Your task to perform on an android device: Open the calendar and show me this week's events? Image 0: 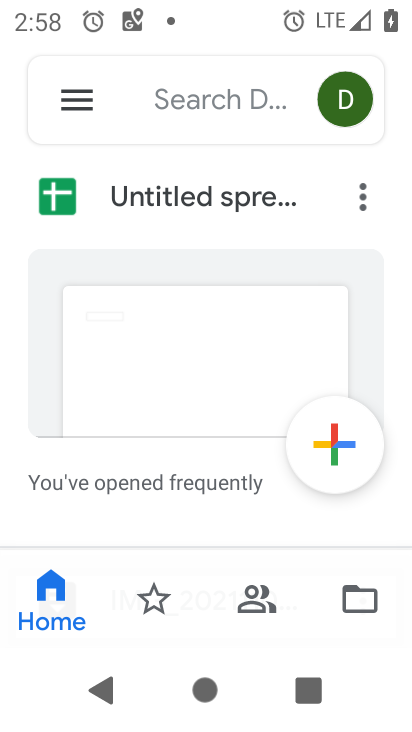
Step 0: press home button
Your task to perform on an android device: Open the calendar and show me this week's events? Image 1: 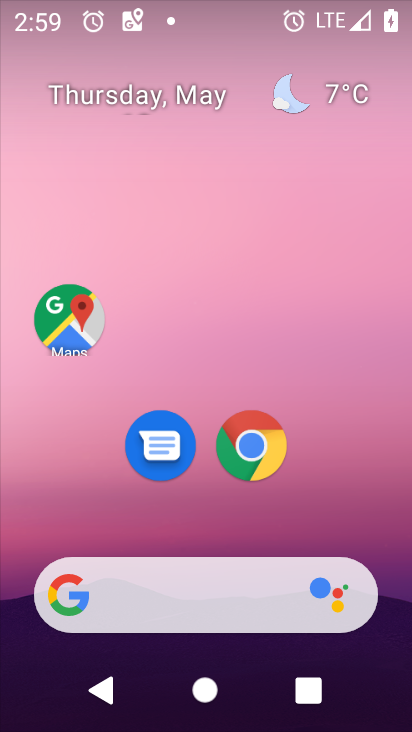
Step 1: drag from (394, 571) to (400, 26)
Your task to perform on an android device: Open the calendar and show me this week's events? Image 2: 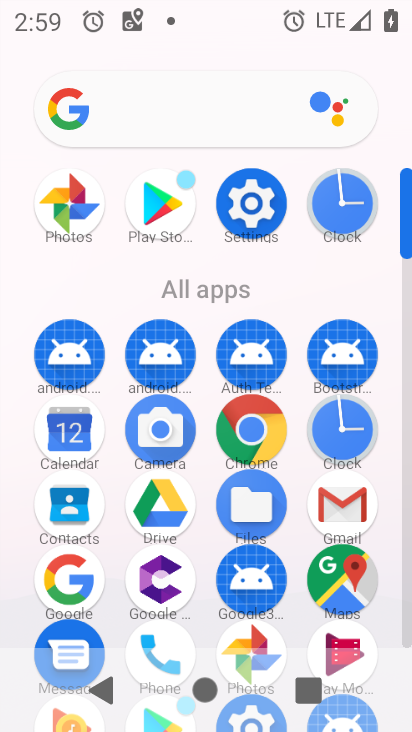
Step 2: click (62, 443)
Your task to perform on an android device: Open the calendar and show me this week's events? Image 3: 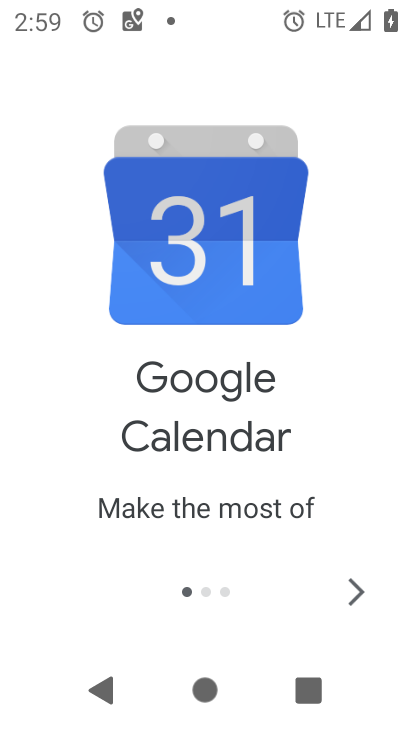
Step 3: click (362, 584)
Your task to perform on an android device: Open the calendar and show me this week's events? Image 4: 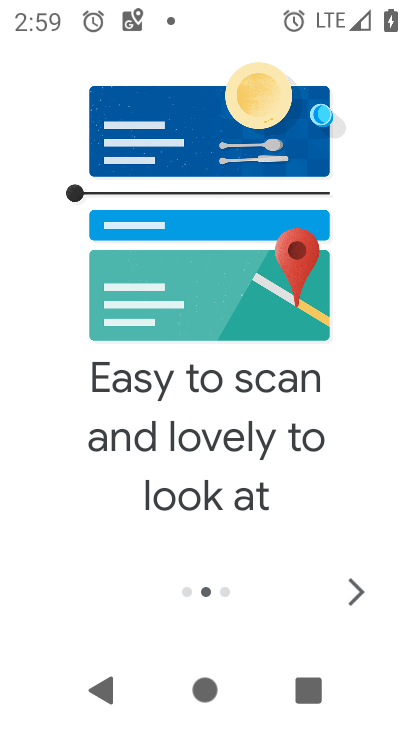
Step 4: click (362, 584)
Your task to perform on an android device: Open the calendar and show me this week's events? Image 5: 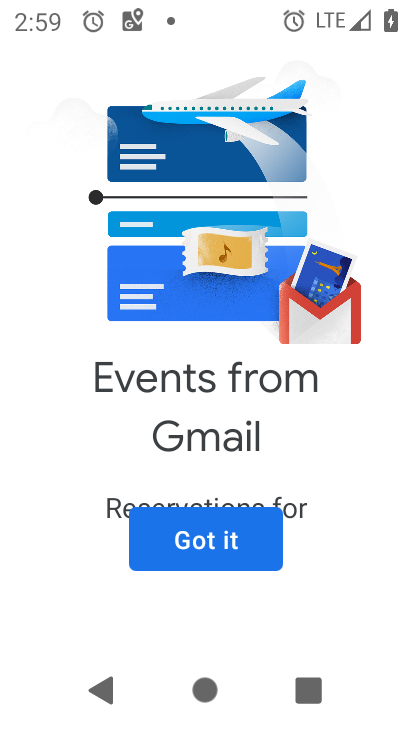
Step 5: click (202, 557)
Your task to perform on an android device: Open the calendar and show me this week's events? Image 6: 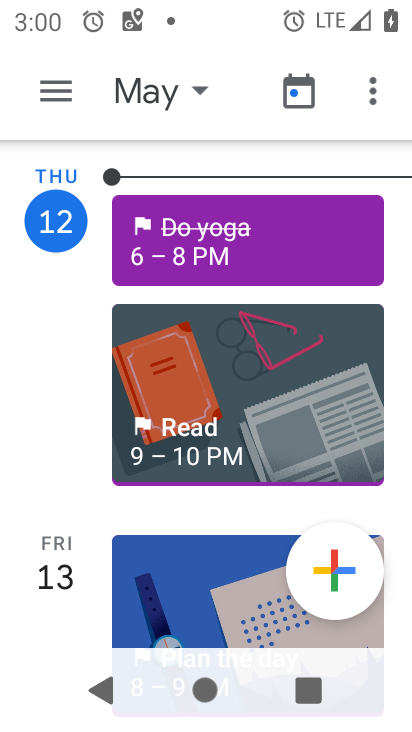
Step 6: click (70, 99)
Your task to perform on an android device: Open the calendar and show me this week's events? Image 7: 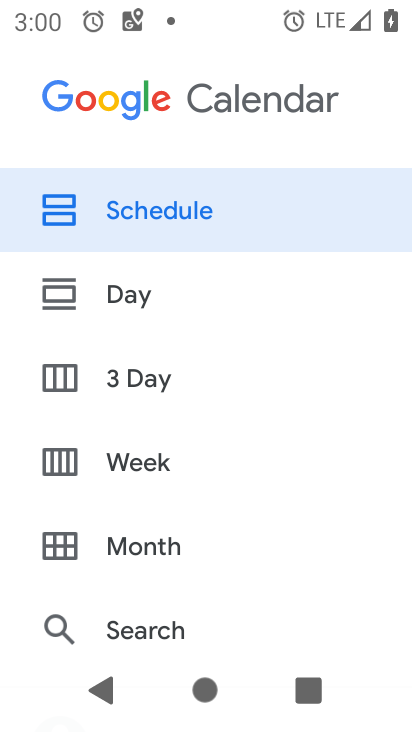
Step 7: drag from (129, 548) to (132, 171)
Your task to perform on an android device: Open the calendar and show me this week's events? Image 8: 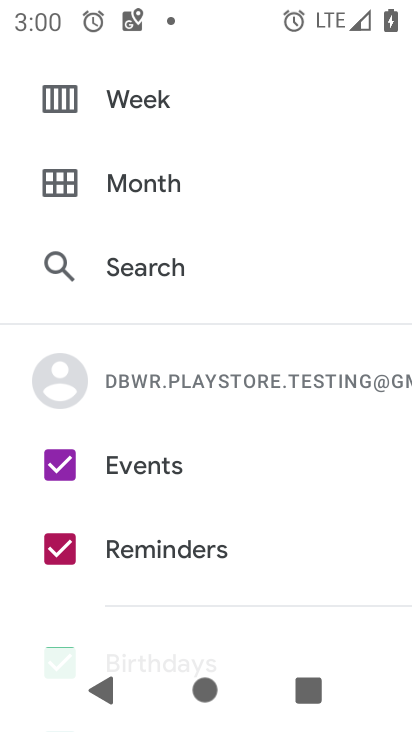
Step 8: click (65, 548)
Your task to perform on an android device: Open the calendar and show me this week's events? Image 9: 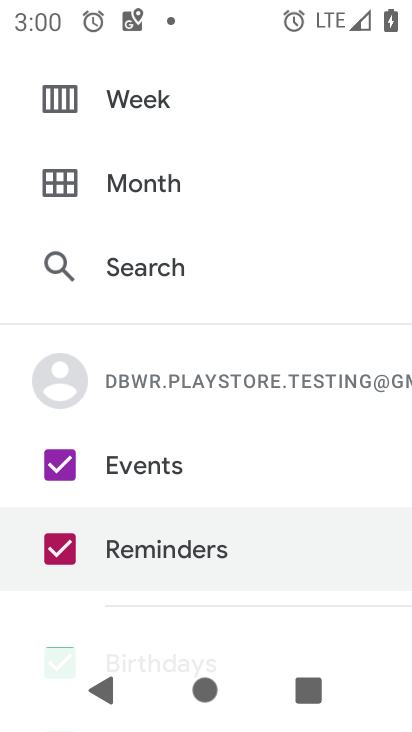
Step 9: drag from (172, 530) to (194, 171)
Your task to perform on an android device: Open the calendar and show me this week's events? Image 10: 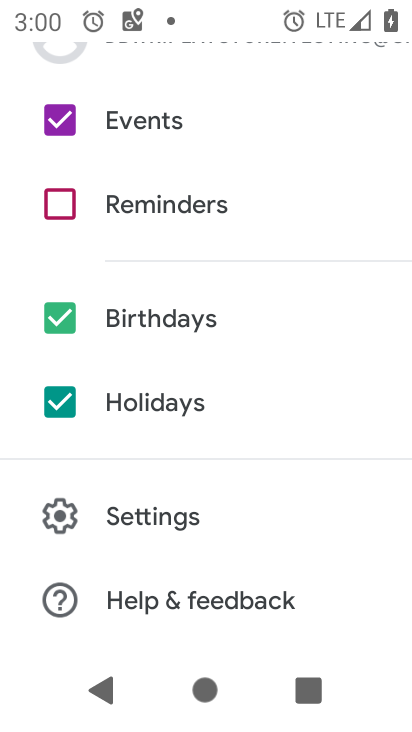
Step 10: click (64, 321)
Your task to perform on an android device: Open the calendar and show me this week's events? Image 11: 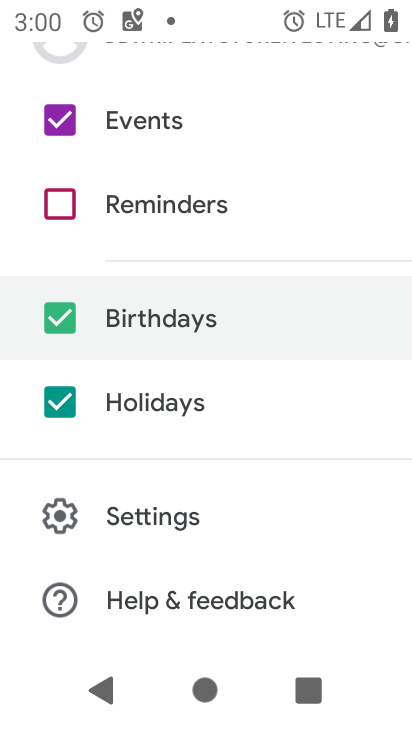
Step 11: click (60, 397)
Your task to perform on an android device: Open the calendar and show me this week's events? Image 12: 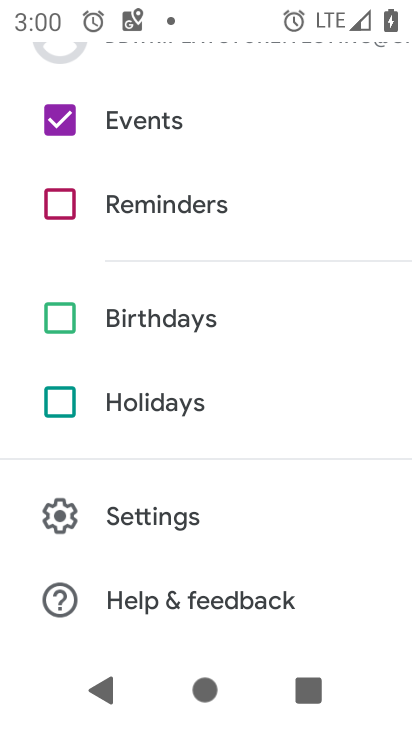
Step 12: drag from (164, 256) to (163, 639)
Your task to perform on an android device: Open the calendar and show me this week's events? Image 13: 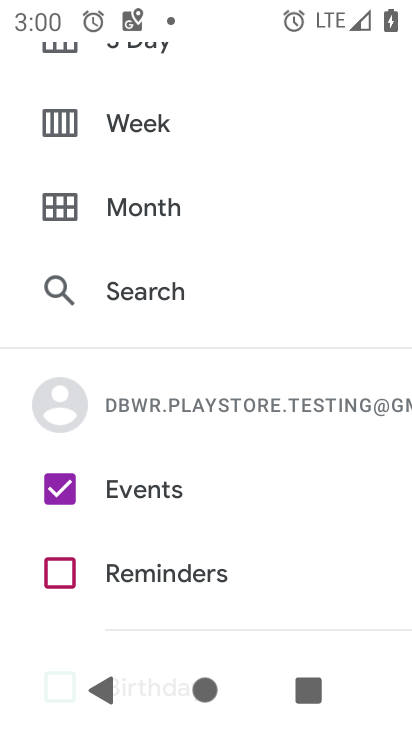
Step 13: click (107, 130)
Your task to perform on an android device: Open the calendar and show me this week's events? Image 14: 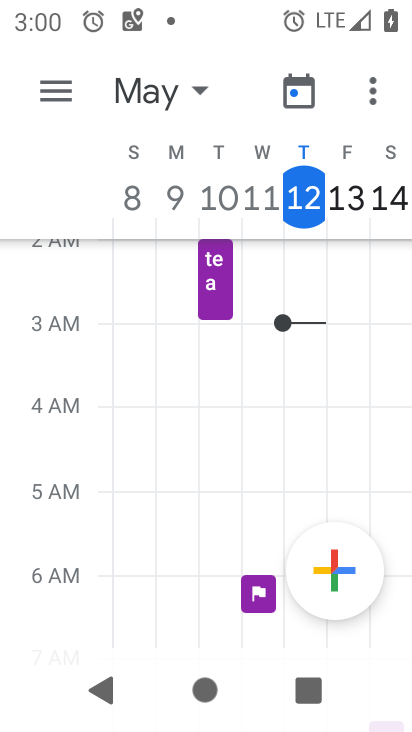
Step 14: task complete